Your task to perform on an android device: turn on wifi Image 0: 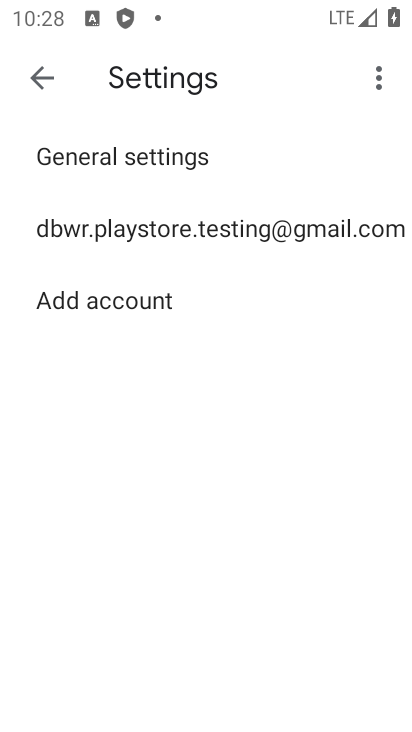
Step 0: press home button
Your task to perform on an android device: turn on wifi Image 1: 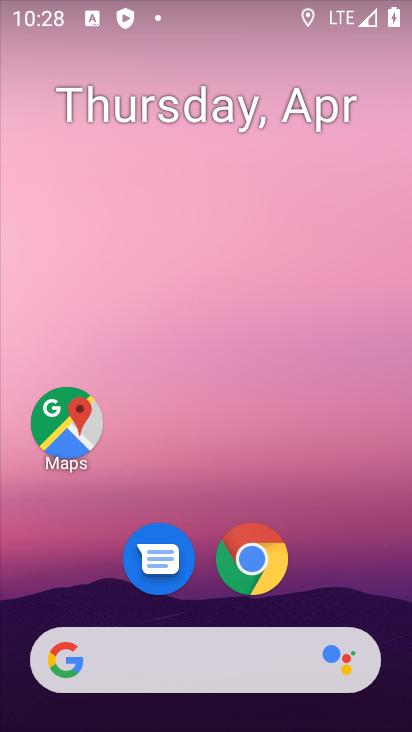
Step 1: drag from (249, 730) to (207, 78)
Your task to perform on an android device: turn on wifi Image 2: 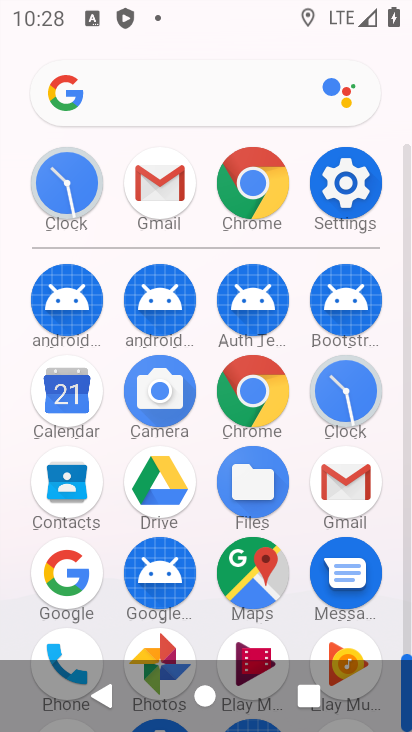
Step 2: click (331, 189)
Your task to perform on an android device: turn on wifi Image 3: 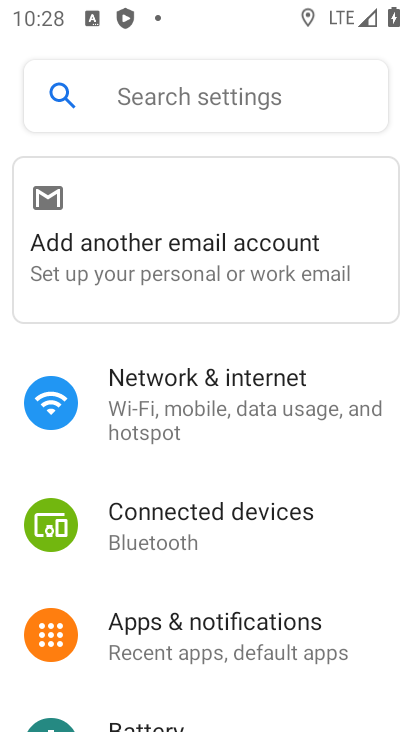
Step 3: click (299, 412)
Your task to perform on an android device: turn on wifi Image 4: 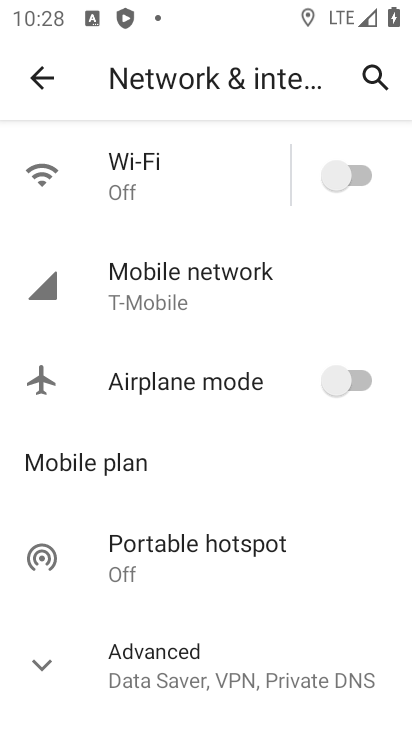
Step 4: click (353, 178)
Your task to perform on an android device: turn on wifi Image 5: 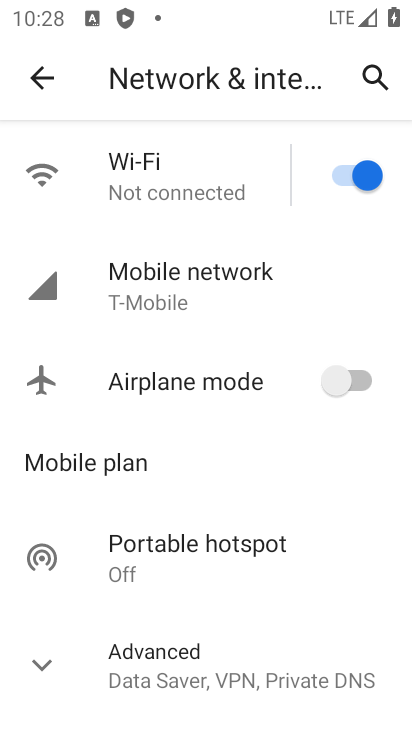
Step 5: task complete